Your task to perform on an android device: Search for vegetarian restaurants on Maps Image 0: 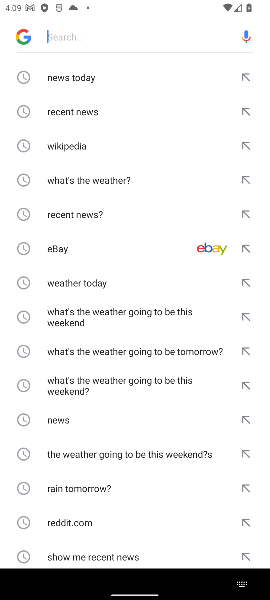
Step 0: press home button
Your task to perform on an android device: Search for vegetarian restaurants on Maps Image 1: 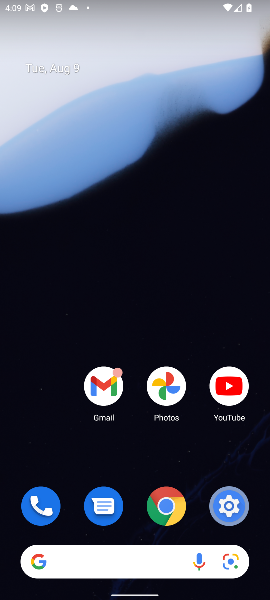
Step 1: drag from (154, 429) to (162, 10)
Your task to perform on an android device: Search for vegetarian restaurants on Maps Image 2: 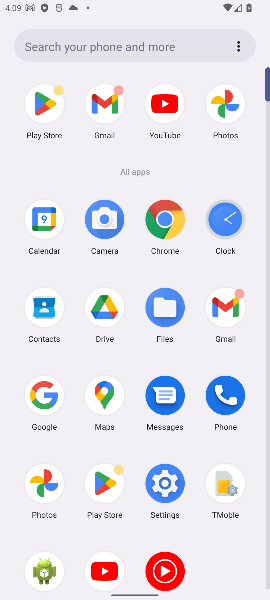
Step 2: click (96, 402)
Your task to perform on an android device: Search for vegetarian restaurants on Maps Image 3: 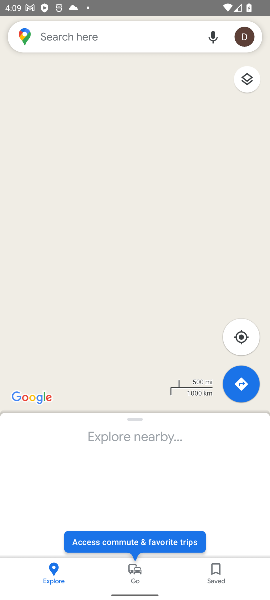
Step 3: click (115, 45)
Your task to perform on an android device: Search for vegetarian restaurants on Maps Image 4: 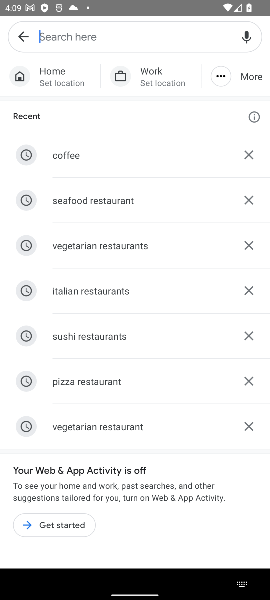
Step 4: click (74, 423)
Your task to perform on an android device: Search for vegetarian restaurants on Maps Image 5: 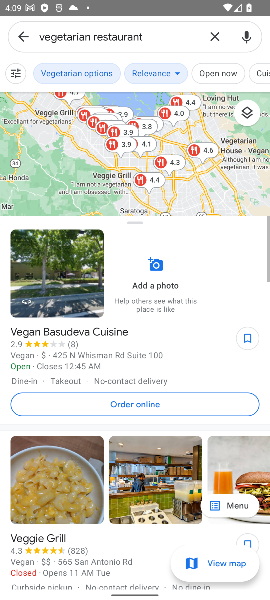
Step 5: task complete